Your task to perform on an android device: What's the weather going to be this weekend? Image 0: 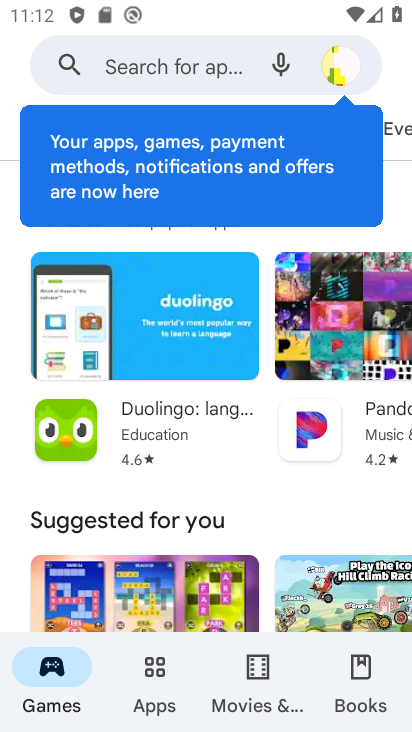
Step 0: press home button
Your task to perform on an android device: What's the weather going to be this weekend? Image 1: 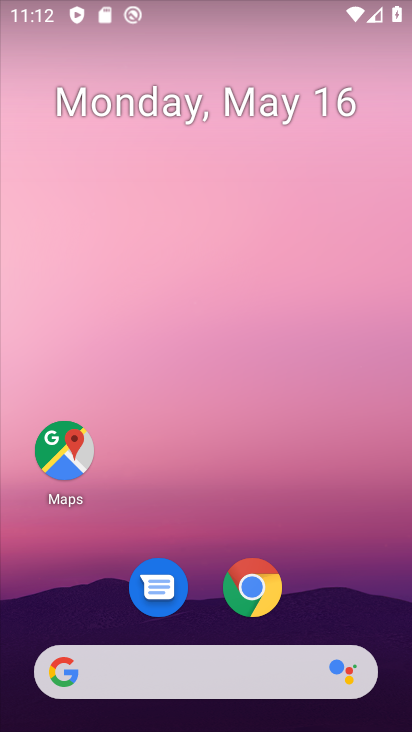
Step 1: click (253, 569)
Your task to perform on an android device: What's the weather going to be this weekend? Image 2: 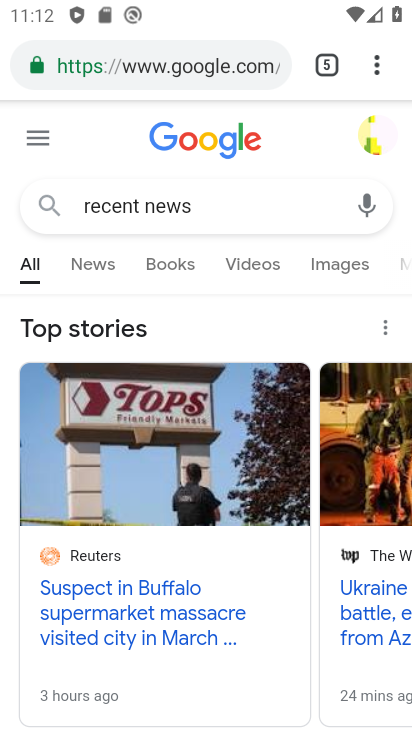
Step 2: click (371, 63)
Your task to perform on an android device: What's the weather going to be this weekend? Image 3: 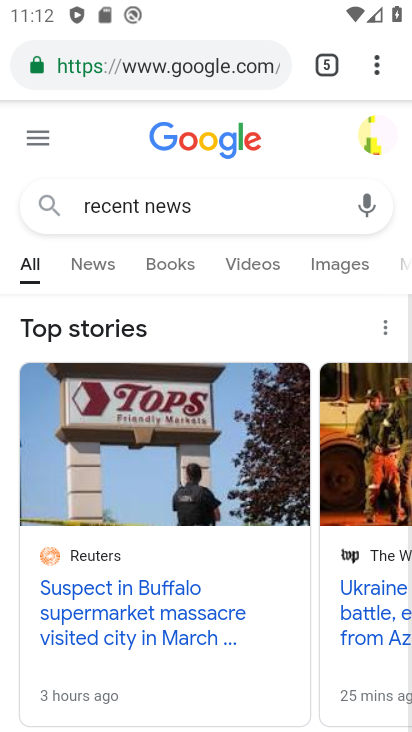
Step 3: click (370, 67)
Your task to perform on an android device: What's the weather going to be this weekend? Image 4: 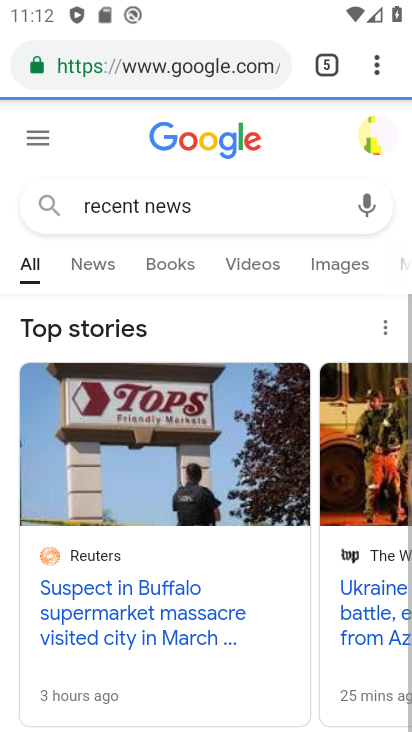
Step 4: click (355, 62)
Your task to perform on an android device: What's the weather going to be this weekend? Image 5: 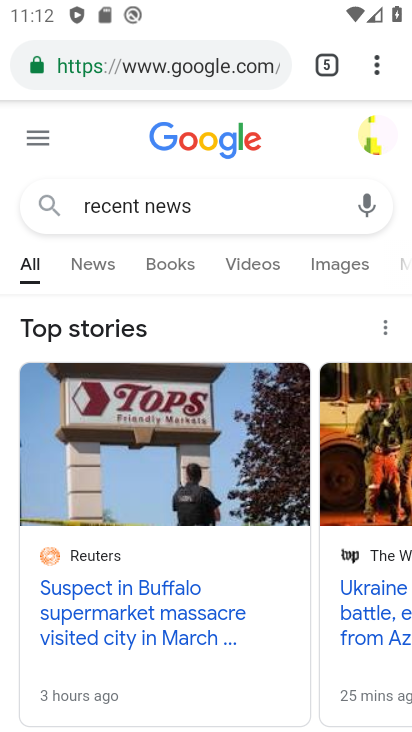
Step 5: click (364, 57)
Your task to perform on an android device: What's the weather going to be this weekend? Image 6: 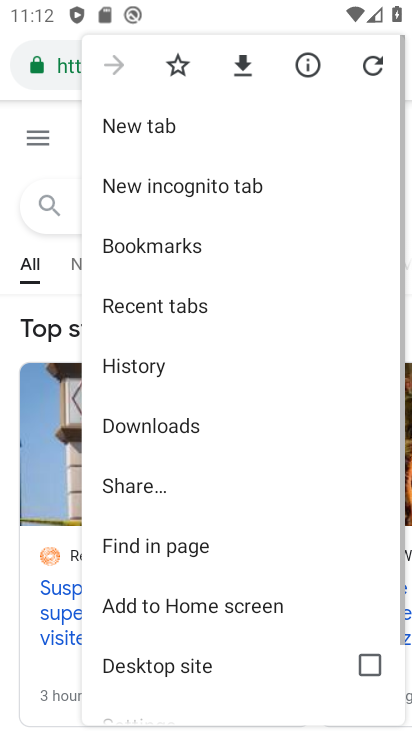
Step 6: click (159, 121)
Your task to perform on an android device: What's the weather going to be this weekend? Image 7: 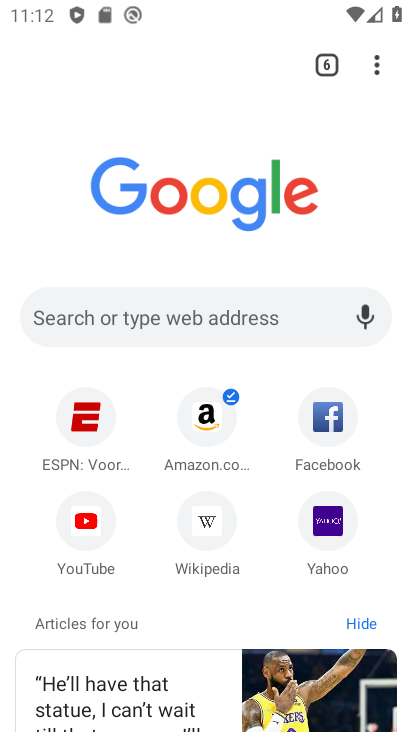
Step 7: click (186, 310)
Your task to perform on an android device: What's the weather going to be this weekend? Image 8: 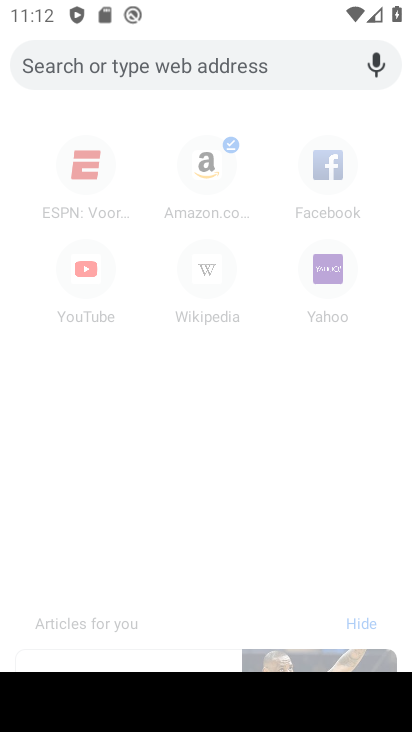
Step 8: type "What's the weather going to be this weekend?"
Your task to perform on an android device: What's the weather going to be this weekend? Image 9: 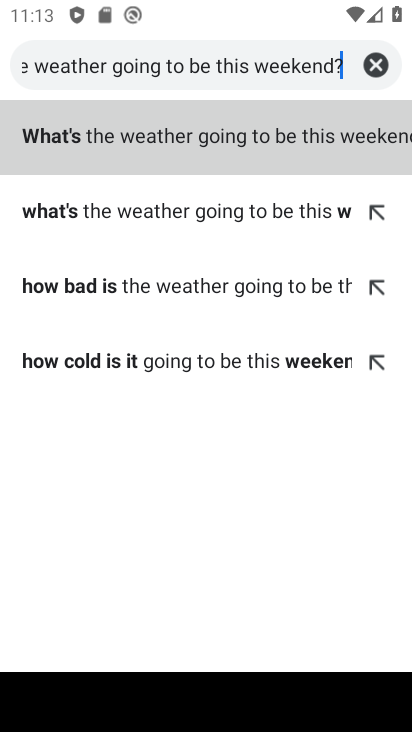
Step 9: click (298, 125)
Your task to perform on an android device: What's the weather going to be this weekend? Image 10: 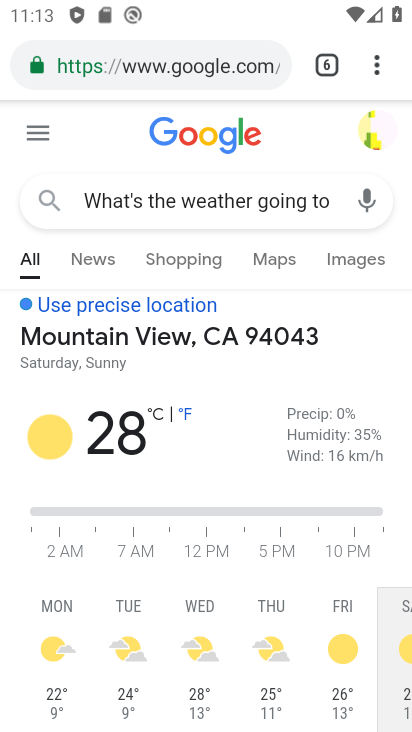
Step 10: task complete